Your task to perform on an android device: Open Google Maps Image 0: 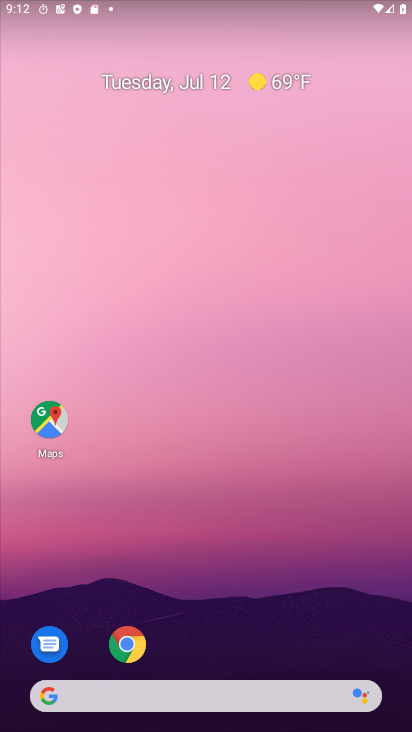
Step 0: press home button
Your task to perform on an android device: Open Google Maps Image 1: 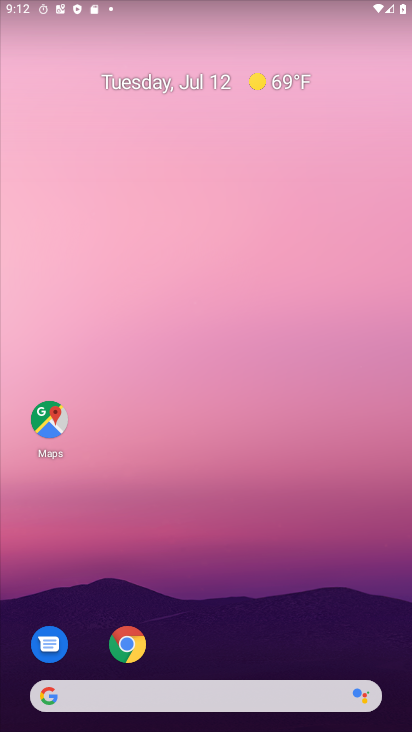
Step 1: drag from (215, 662) to (222, 73)
Your task to perform on an android device: Open Google Maps Image 2: 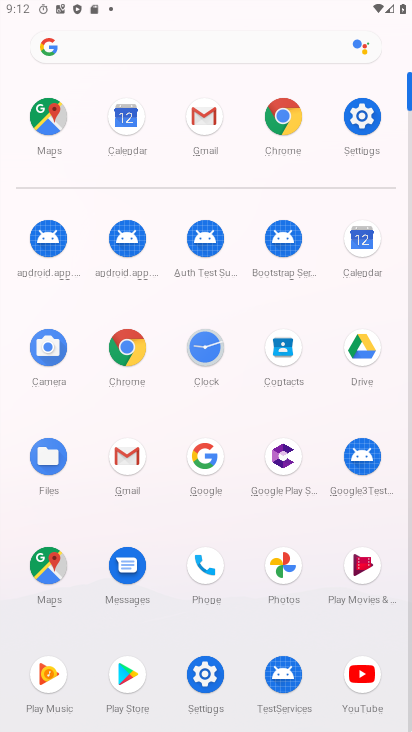
Step 2: click (51, 562)
Your task to perform on an android device: Open Google Maps Image 3: 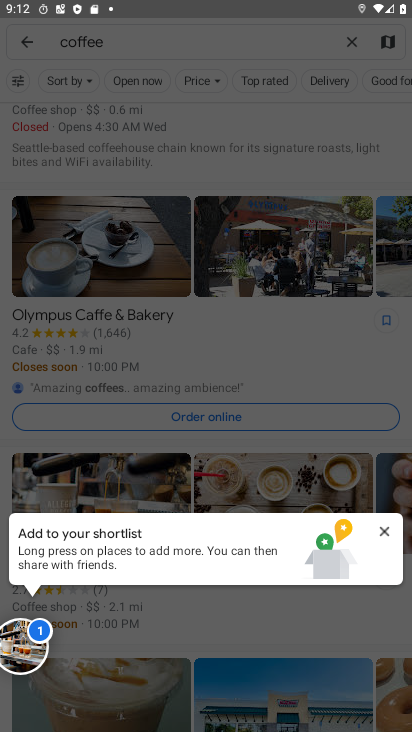
Step 3: click (204, 361)
Your task to perform on an android device: Open Google Maps Image 4: 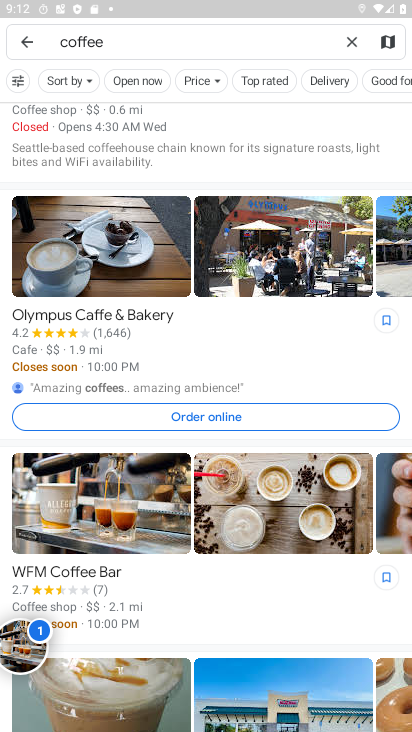
Step 4: click (25, 39)
Your task to perform on an android device: Open Google Maps Image 5: 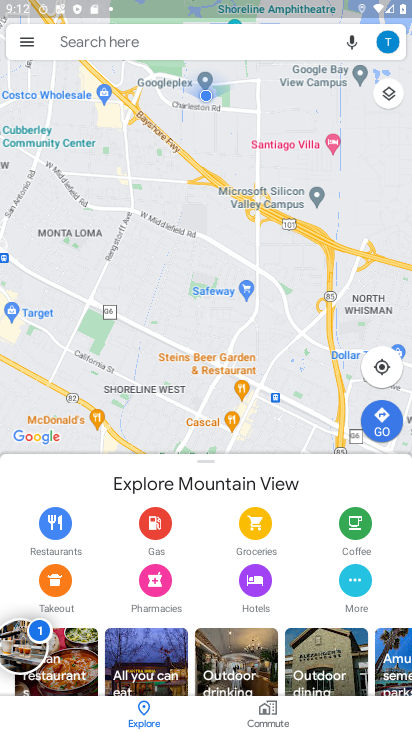
Step 5: task complete